Your task to perform on an android device: check android version Image 0: 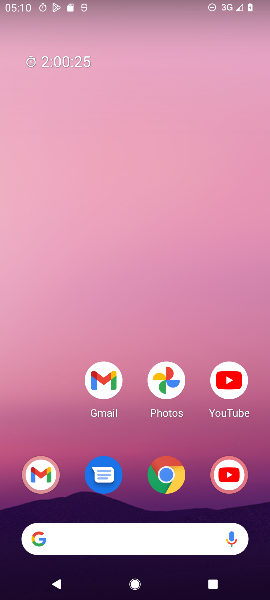
Step 0: press home button
Your task to perform on an android device: check android version Image 1: 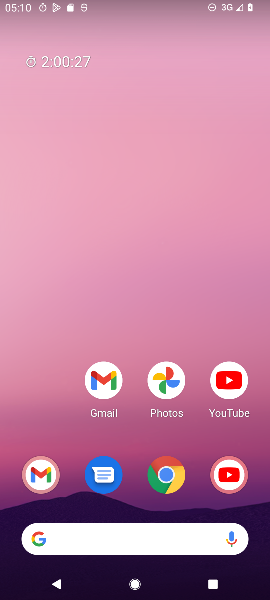
Step 1: drag from (59, 436) to (59, 236)
Your task to perform on an android device: check android version Image 2: 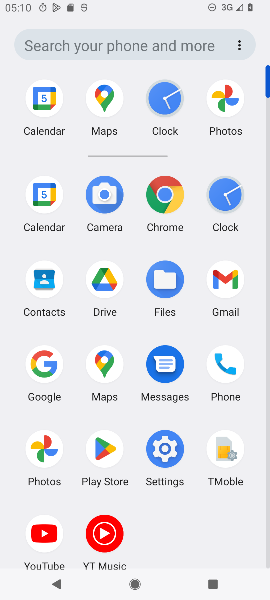
Step 2: click (174, 451)
Your task to perform on an android device: check android version Image 3: 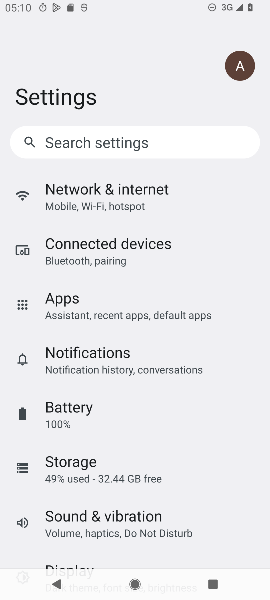
Step 3: drag from (200, 466) to (211, 400)
Your task to perform on an android device: check android version Image 4: 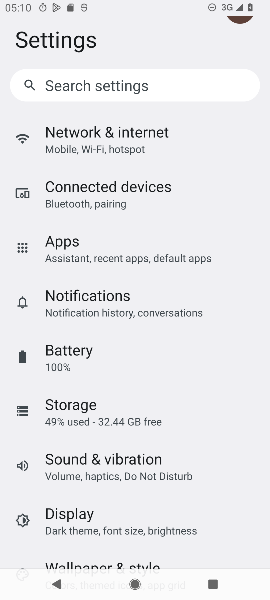
Step 4: drag from (216, 460) to (219, 388)
Your task to perform on an android device: check android version Image 5: 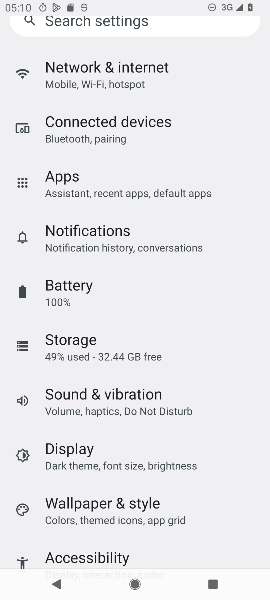
Step 5: drag from (220, 455) to (222, 358)
Your task to perform on an android device: check android version Image 6: 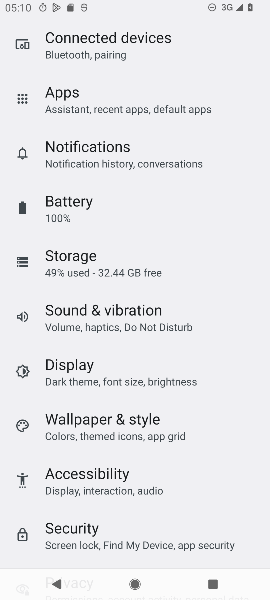
Step 6: drag from (218, 432) to (220, 338)
Your task to perform on an android device: check android version Image 7: 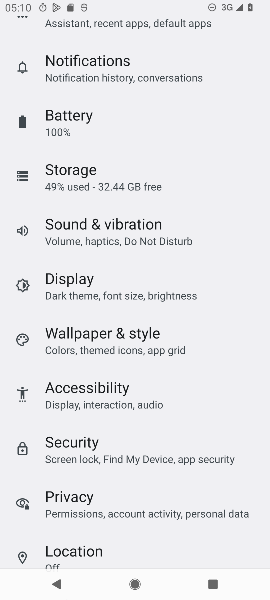
Step 7: drag from (216, 449) to (220, 328)
Your task to perform on an android device: check android version Image 8: 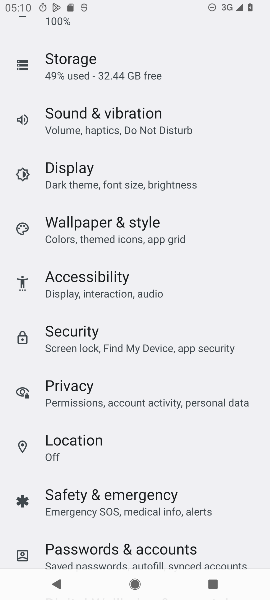
Step 8: drag from (226, 471) to (229, 394)
Your task to perform on an android device: check android version Image 9: 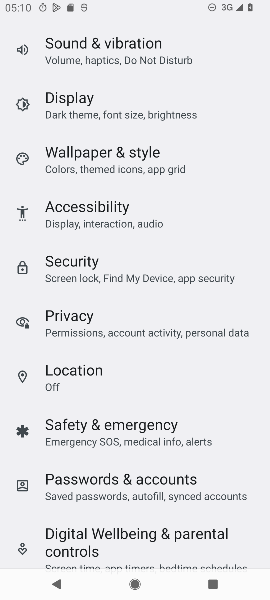
Step 9: drag from (222, 504) to (224, 381)
Your task to perform on an android device: check android version Image 10: 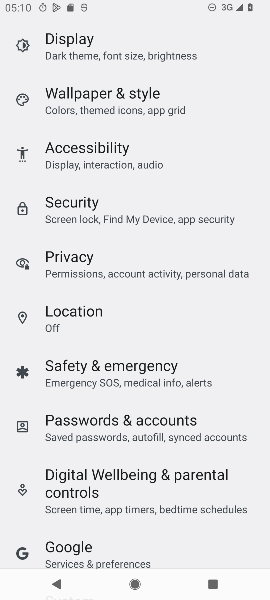
Step 10: drag from (232, 521) to (238, 397)
Your task to perform on an android device: check android version Image 11: 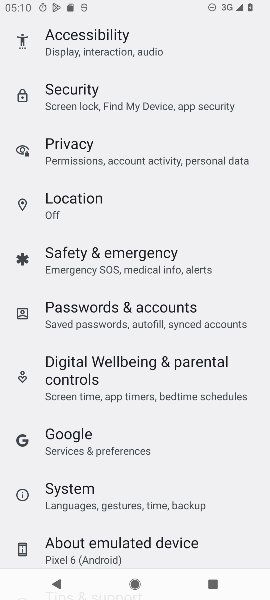
Step 11: click (193, 488)
Your task to perform on an android device: check android version Image 12: 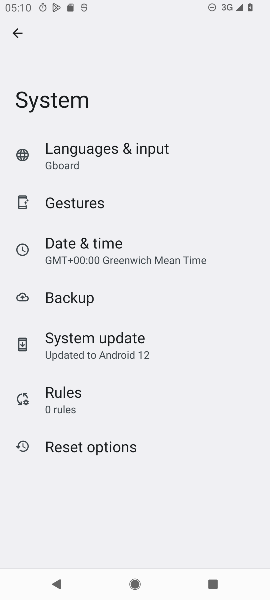
Step 12: click (154, 342)
Your task to perform on an android device: check android version Image 13: 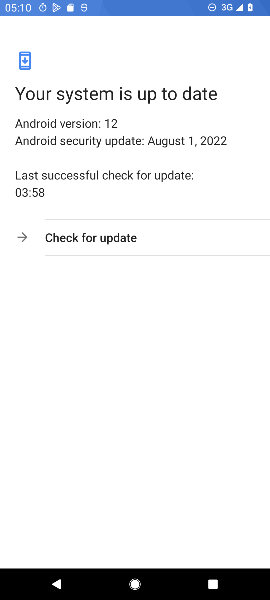
Step 13: task complete